Your task to perform on an android device: refresh tabs in the chrome app Image 0: 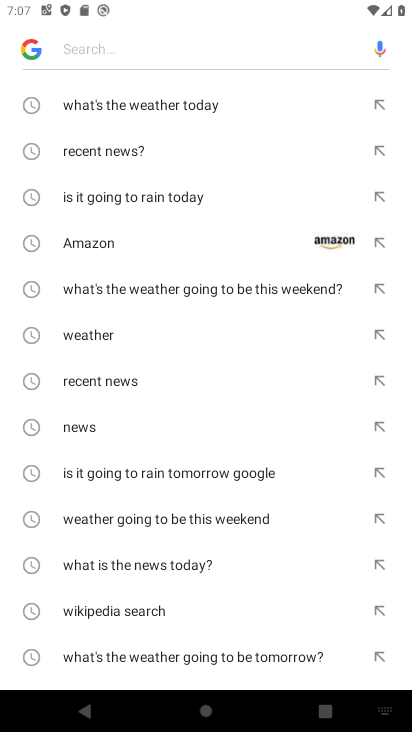
Step 0: press home button
Your task to perform on an android device: refresh tabs in the chrome app Image 1: 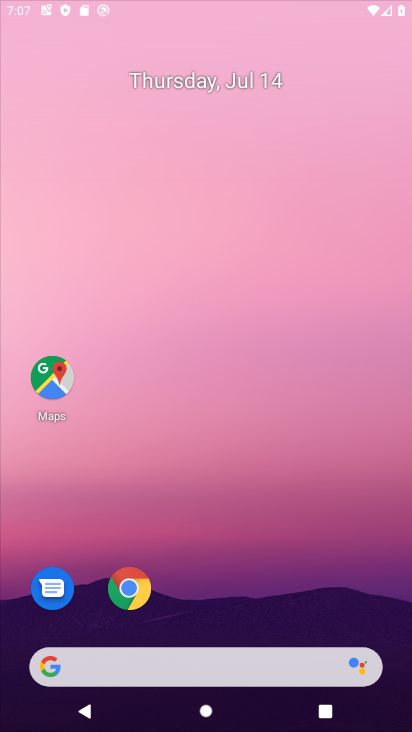
Step 1: drag from (373, 657) to (275, 12)
Your task to perform on an android device: refresh tabs in the chrome app Image 2: 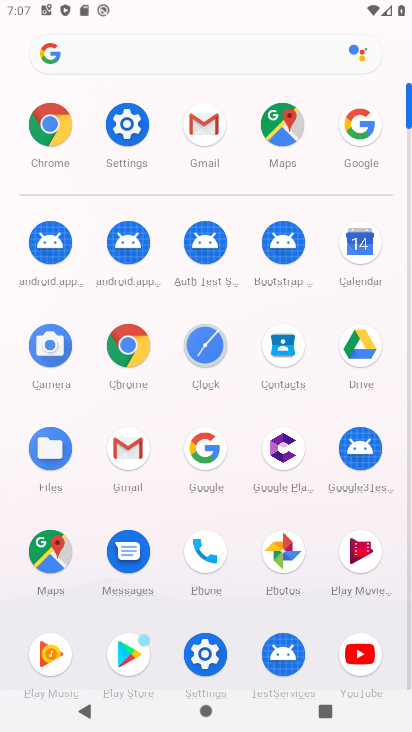
Step 2: click (49, 126)
Your task to perform on an android device: refresh tabs in the chrome app Image 3: 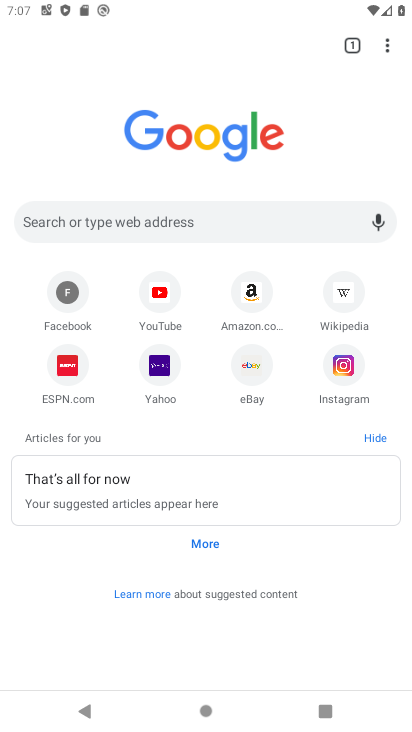
Step 3: click (385, 42)
Your task to perform on an android device: refresh tabs in the chrome app Image 4: 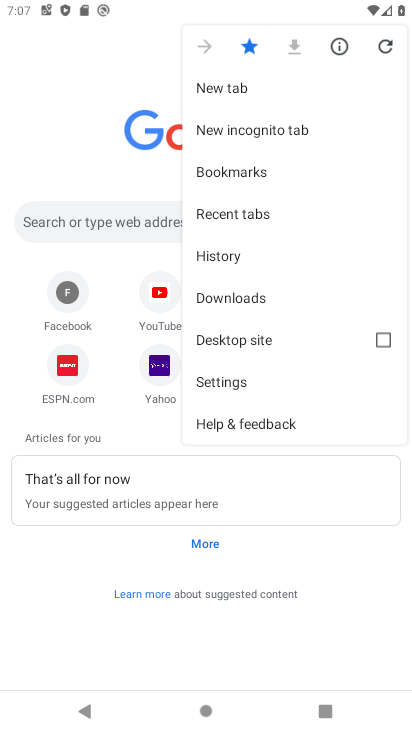
Step 4: click (385, 42)
Your task to perform on an android device: refresh tabs in the chrome app Image 5: 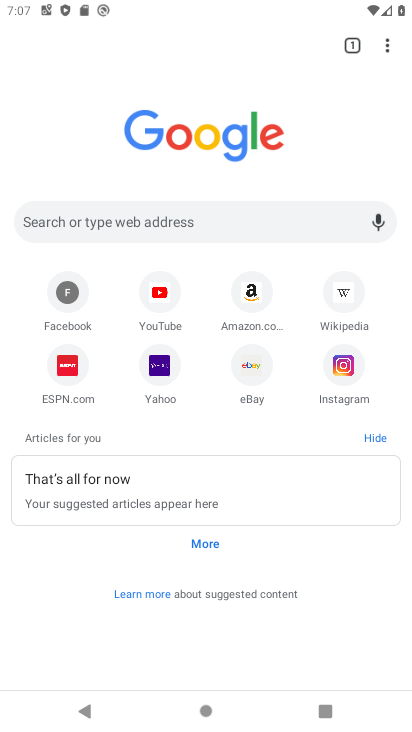
Step 5: task complete